Your task to perform on an android device: remove spam from my inbox in the gmail app Image 0: 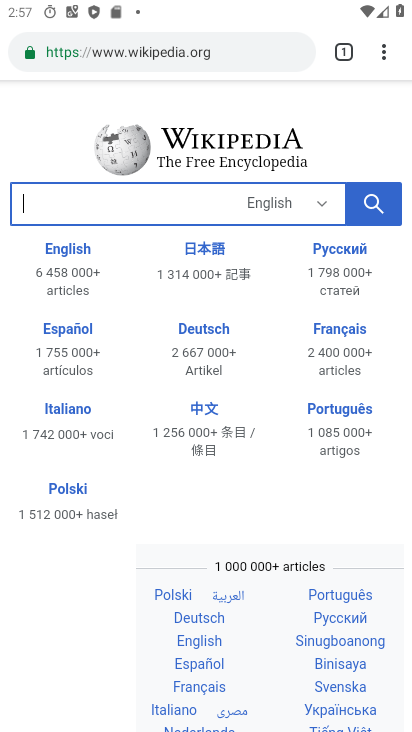
Step 0: press home button
Your task to perform on an android device: remove spam from my inbox in the gmail app Image 1: 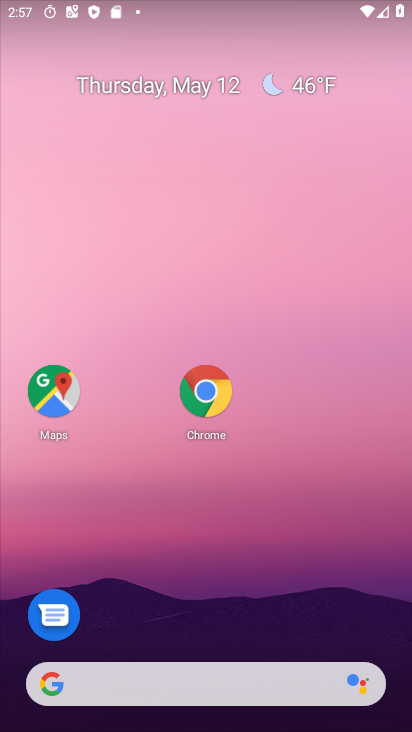
Step 1: drag from (187, 599) to (301, 82)
Your task to perform on an android device: remove spam from my inbox in the gmail app Image 2: 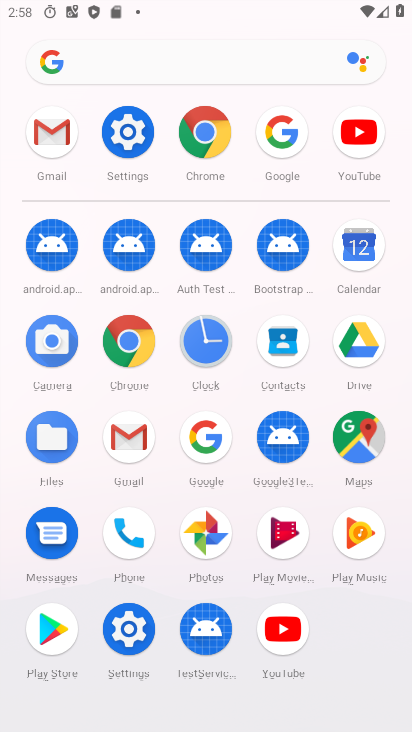
Step 2: click (53, 137)
Your task to perform on an android device: remove spam from my inbox in the gmail app Image 3: 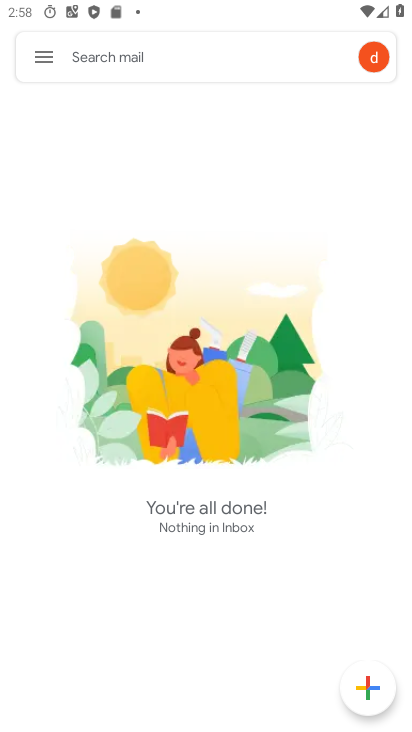
Step 3: click (45, 54)
Your task to perform on an android device: remove spam from my inbox in the gmail app Image 4: 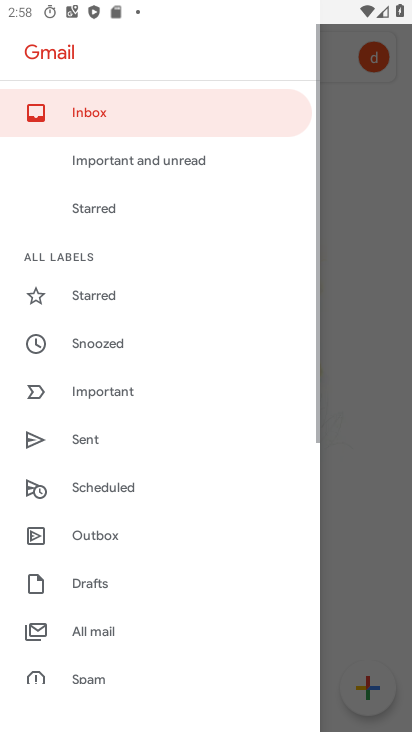
Step 4: drag from (166, 548) to (174, 292)
Your task to perform on an android device: remove spam from my inbox in the gmail app Image 5: 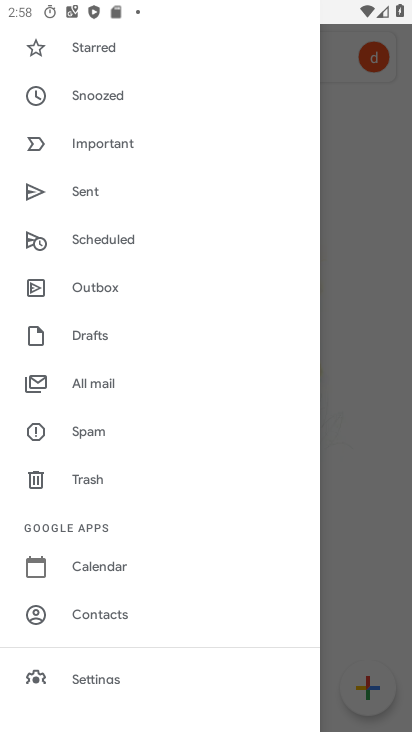
Step 5: drag from (161, 267) to (238, 511)
Your task to perform on an android device: remove spam from my inbox in the gmail app Image 6: 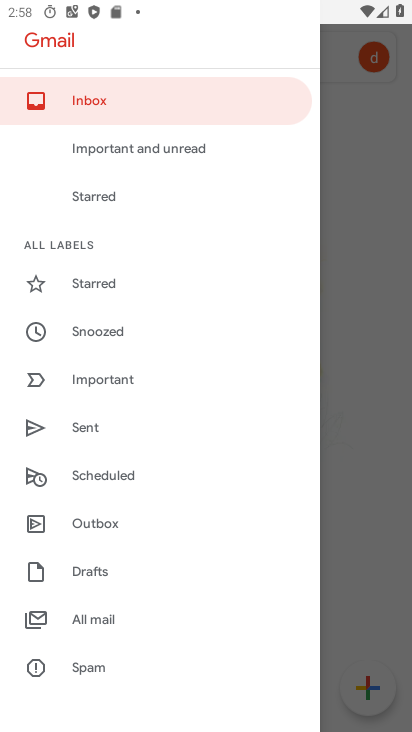
Step 6: click (94, 615)
Your task to perform on an android device: remove spam from my inbox in the gmail app Image 7: 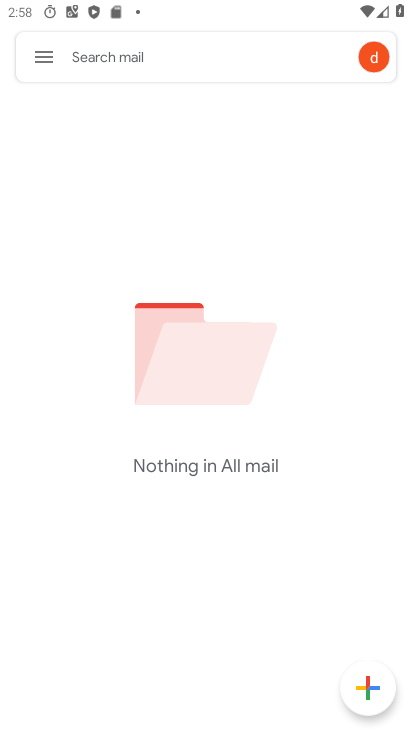
Step 7: task complete